Your task to perform on an android device: clear all cookies in the chrome app Image 0: 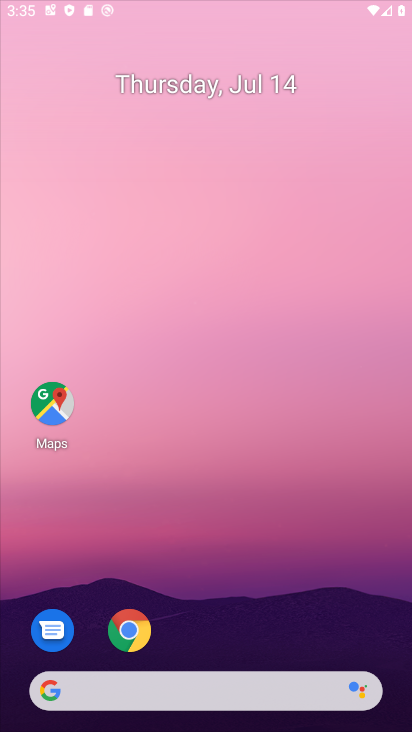
Step 0: click (302, 409)
Your task to perform on an android device: clear all cookies in the chrome app Image 1: 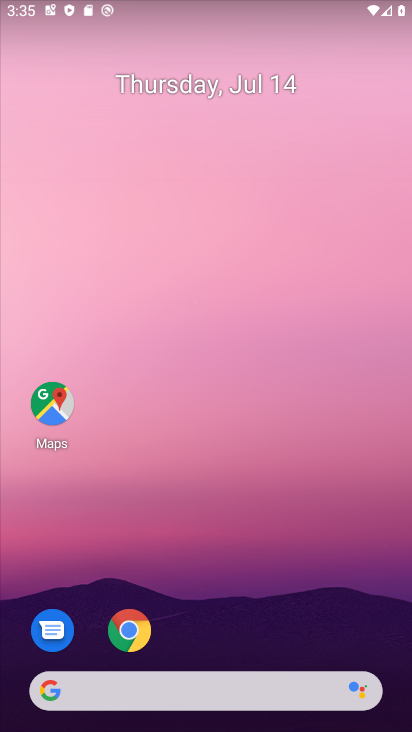
Step 1: click (127, 632)
Your task to perform on an android device: clear all cookies in the chrome app Image 2: 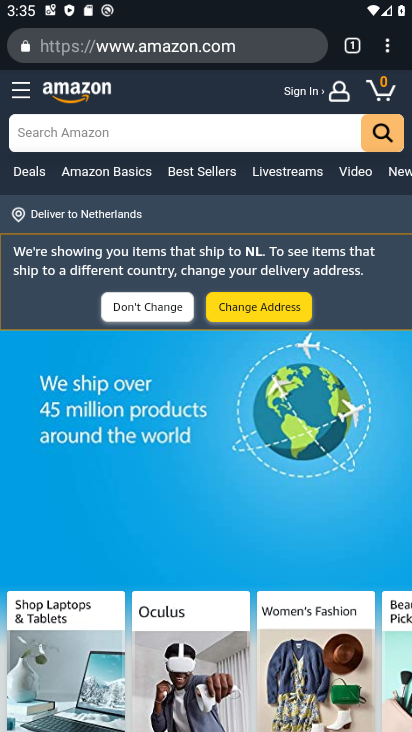
Step 2: click (386, 45)
Your task to perform on an android device: clear all cookies in the chrome app Image 3: 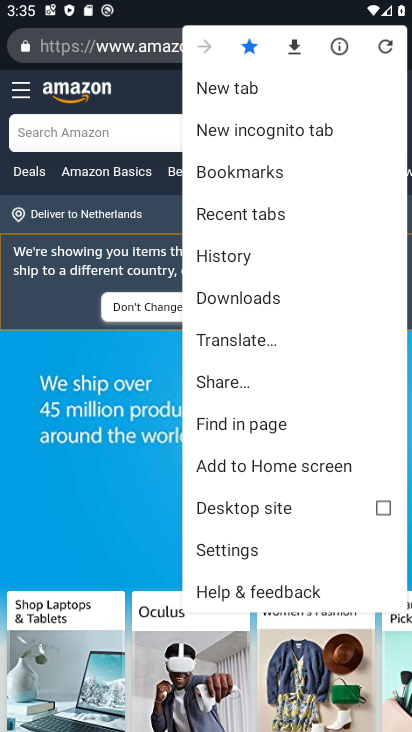
Step 3: click (263, 253)
Your task to perform on an android device: clear all cookies in the chrome app Image 4: 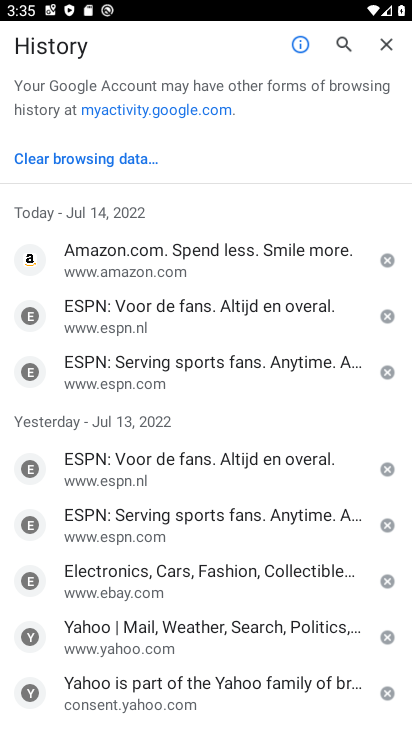
Step 4: click (119, 145)
Your task to perform on an android device: clear all cookies in the chrome app Image 5: 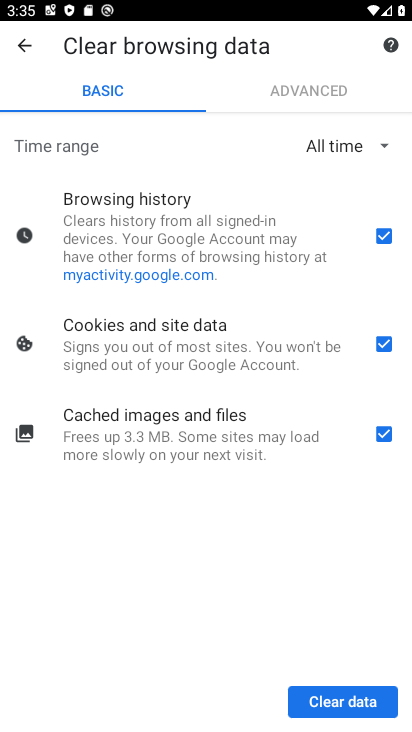
Step 5: click (384, 231)
Your task to perform on an android device: clear all cookies in the chrome app Image 6: 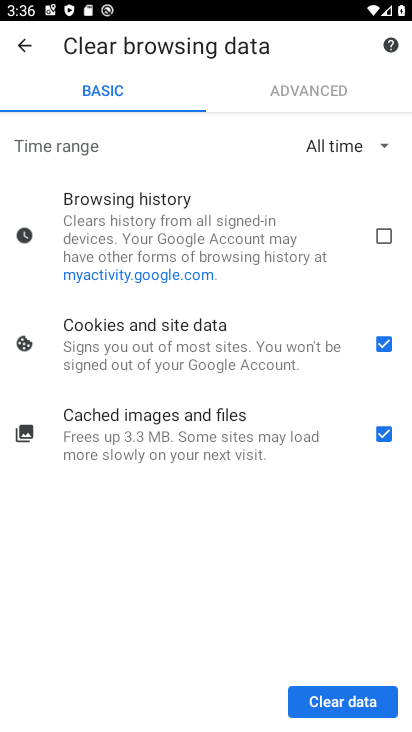
Step 6: click (383, 437)
Your task to perform on an android device: clear all cookies in the chrome app Image 7: 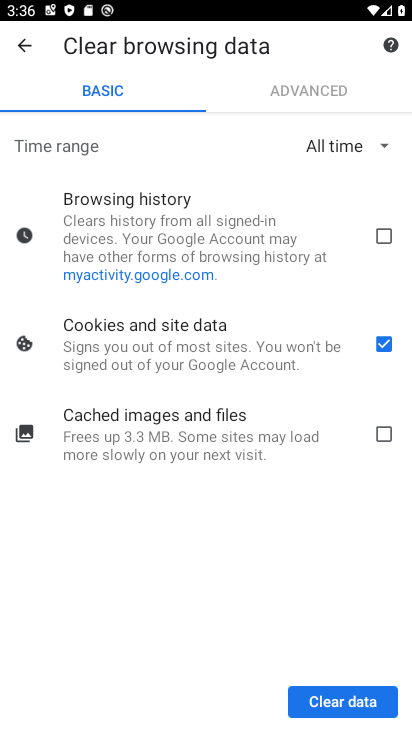
Step 7: click (335, 695)
Your task to perform on an android device: clear all cookies in the chrome app Image 8: 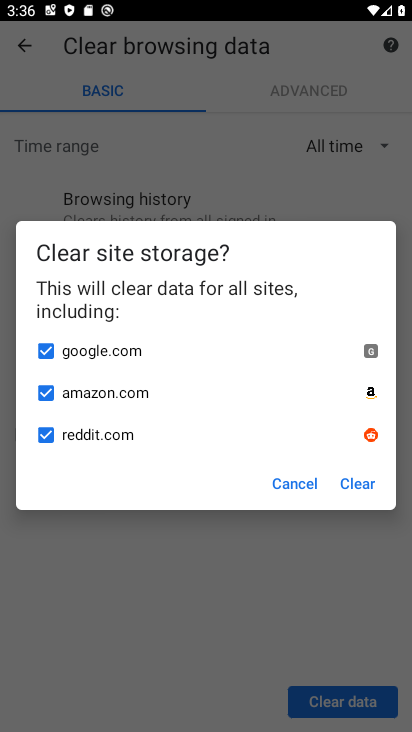
Step 8: click (366, 483)
Your task to perform on an android device: clear all cookies in the chrome app Image 9: 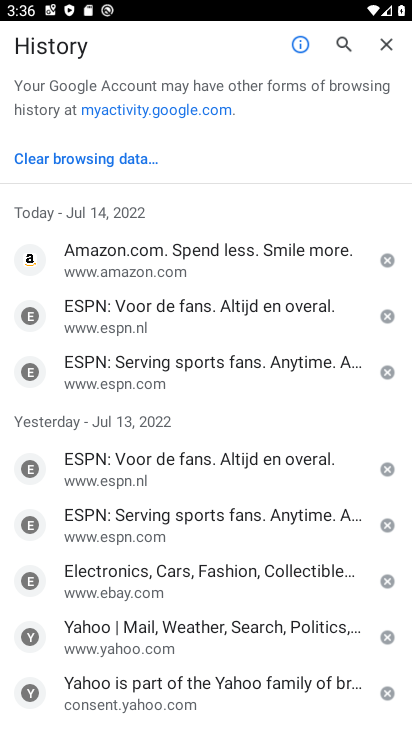
Step 9: task complete